Your task to perform on an android device: Go to accessibility settings Image 0: 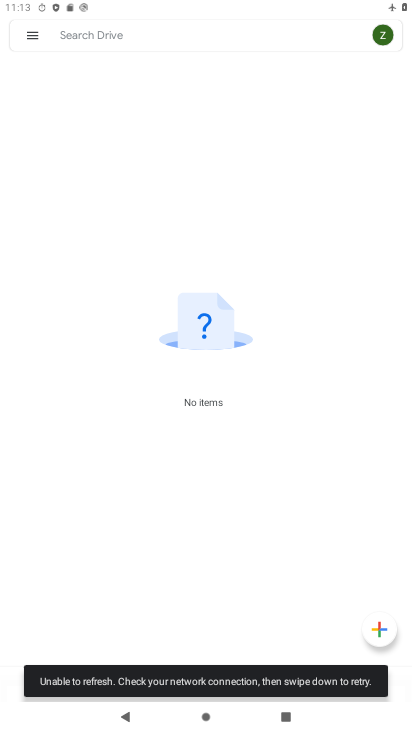
Step 0: press home button
Your task to perform on an android device: Go to accessibility settings Image 1: 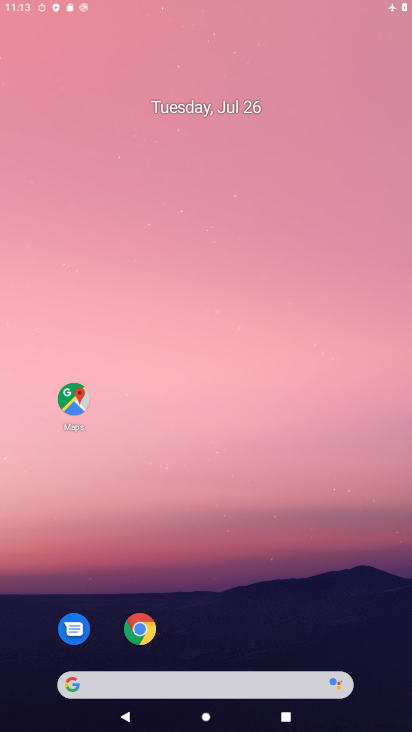
Step 1: drag from (348, 639) to (125, 5)
Your task to perform on an android device: Go to accessibility settings Image 2: 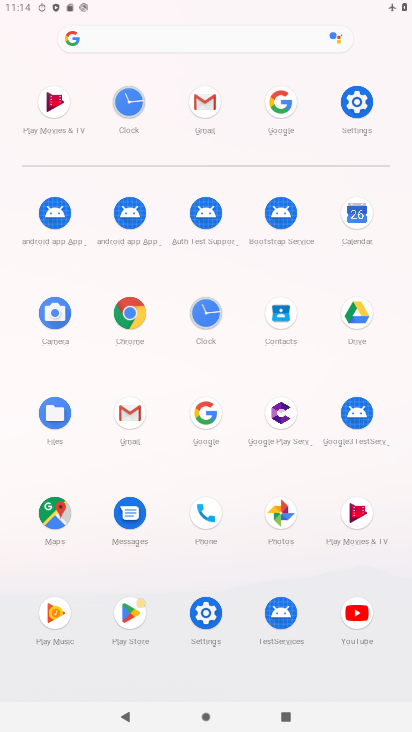
Step 2: click (203, 622)
Your task to perform on an android device: Go to accessibility settings Image 3: 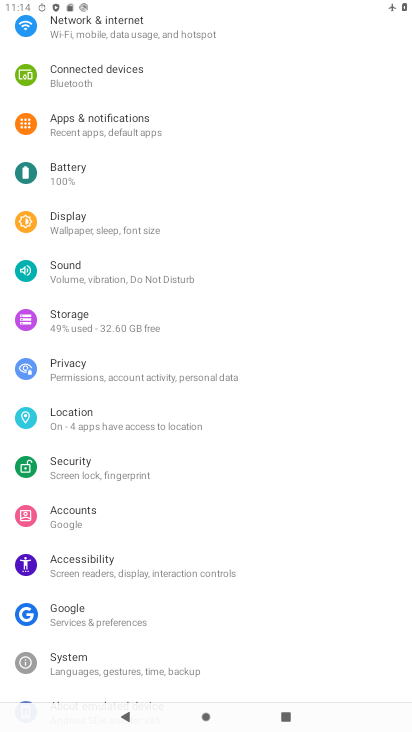
Step 3: click (105, 574)
Your task to perform on an android device: Go to accessibility settings Image 4: 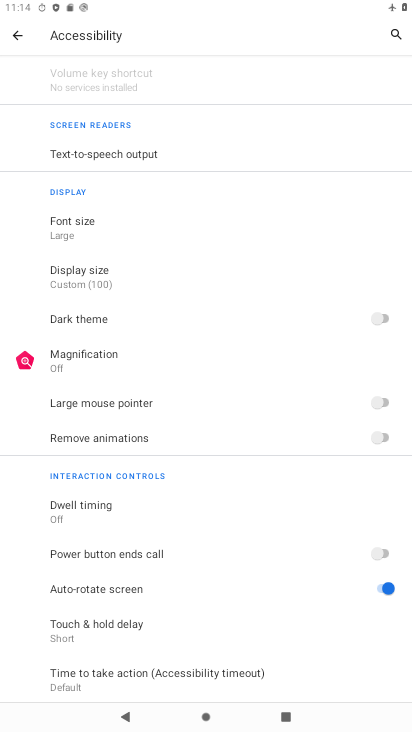
Step 4: task complete